Your task to perform on an android device: Search for sushi restaurants on Maps Image 0: 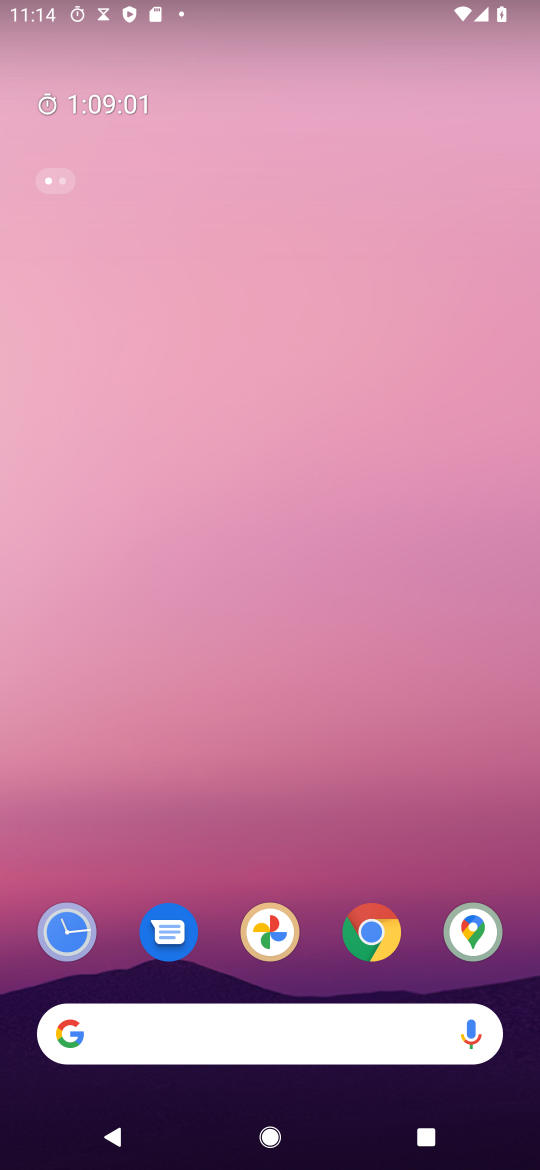
Step 0: click (469, 917)
Your task to perform on an android device: Search for sushi restaurants on Maps Image 1: 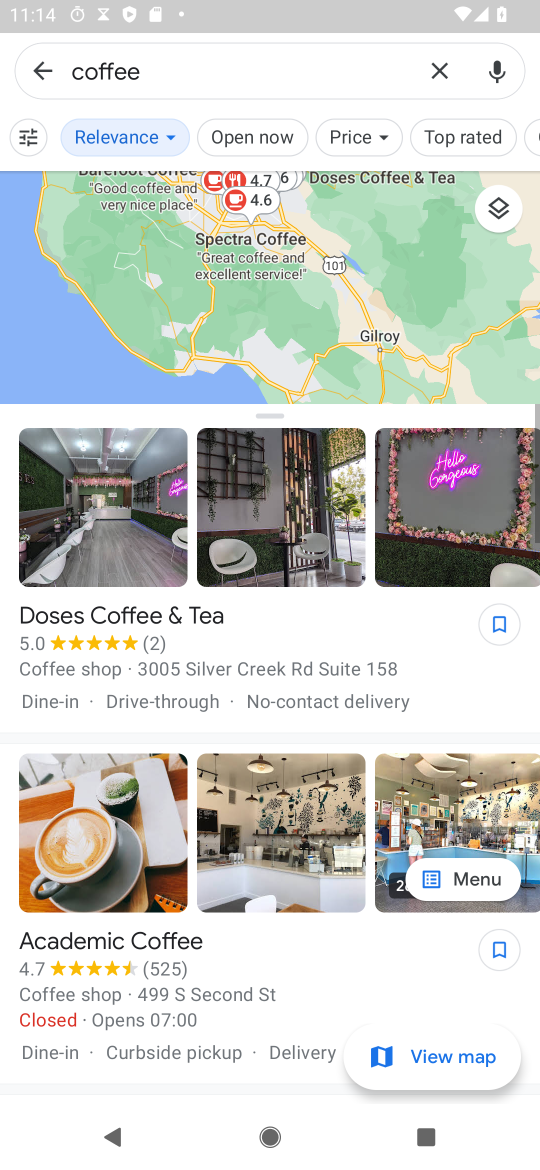
Step 1: click (436, 65)
Your task to perform on an android device: Search for sushi restaurants on Maps Image 2: 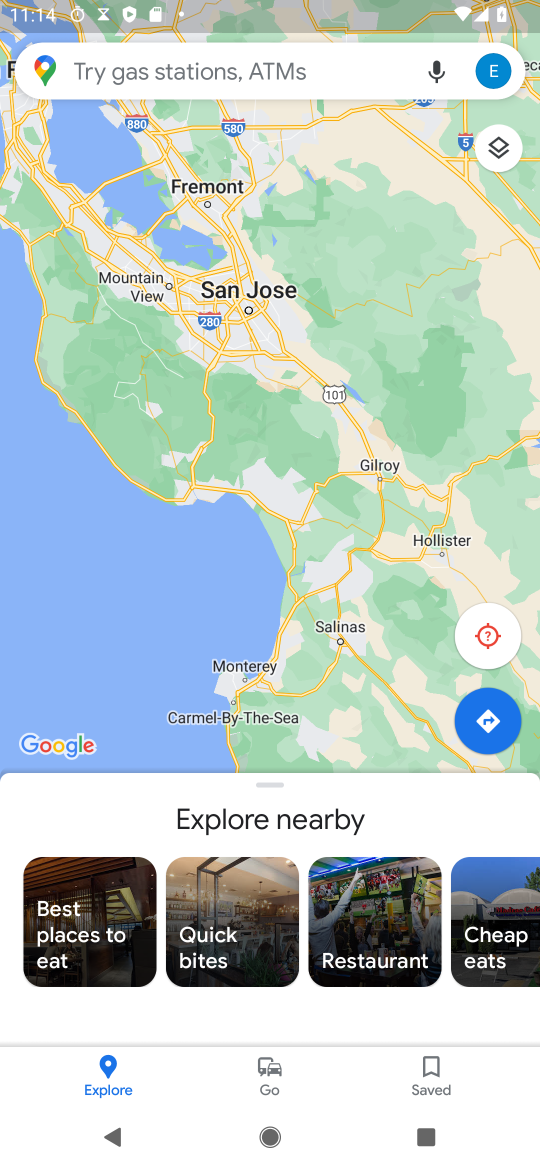
Step 2: click (316, 67)
Your task to perform on an android device: Search for sushi restaurants on Maps Image 3: 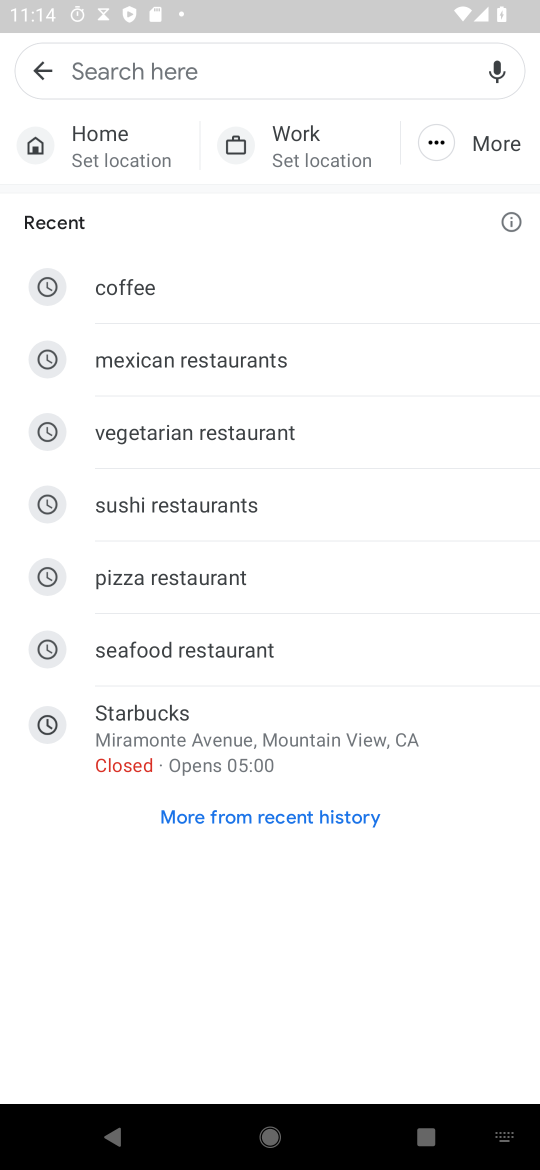
Step 3: click (295, 505)
Your task to perform on an android device: Search for sushi restaurants on Maps Image 4: 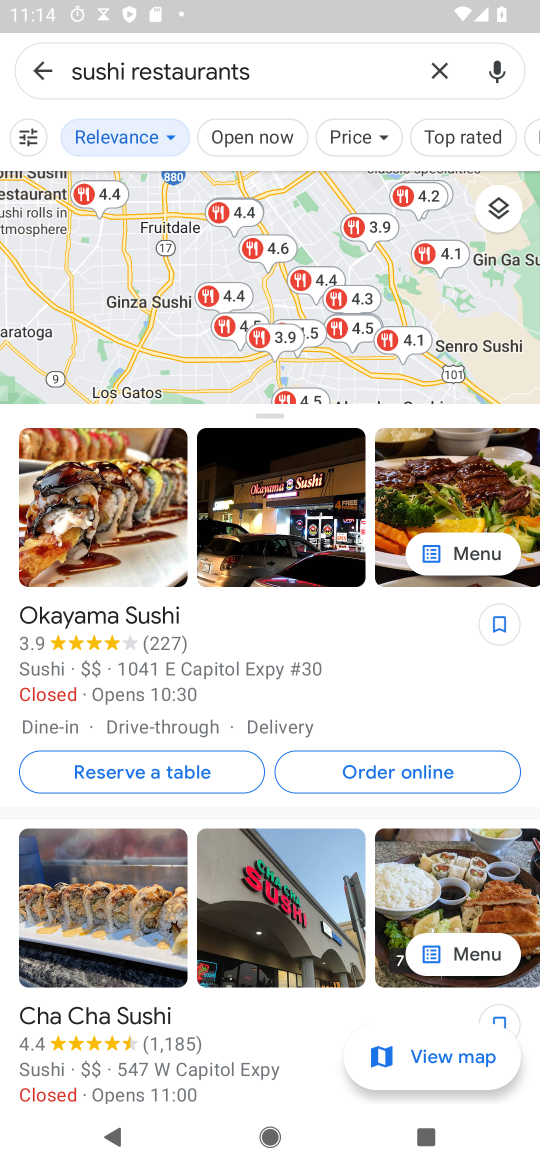
Step 4: task complete